Your task to perform on an android device: turn off wifi Image 0: 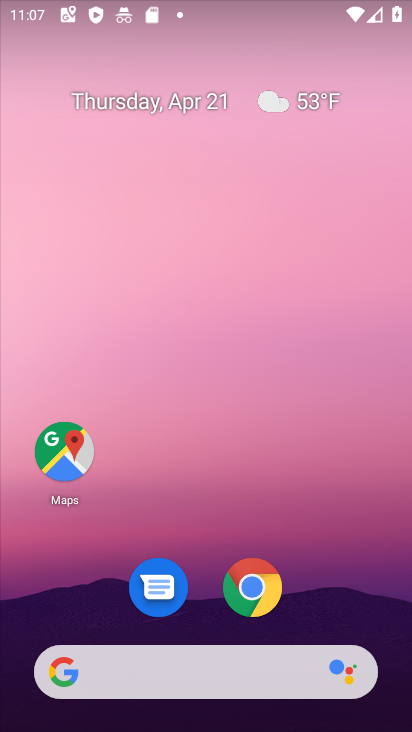
Step 0: drag from (198, 647) to (210, 34)
Your task to perform on an android device: turn off wifi Image 1: 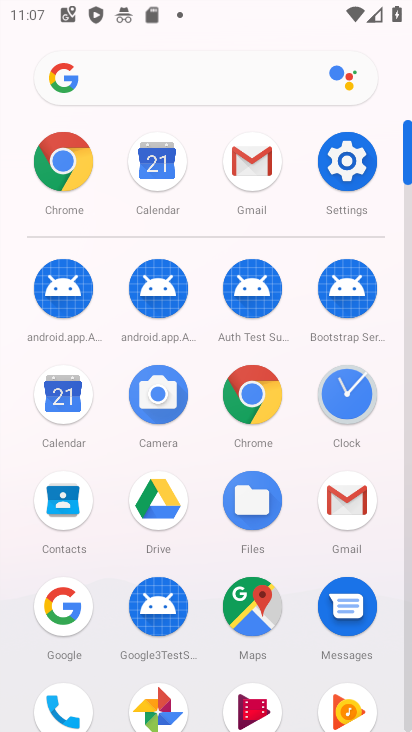
Step 1: click (349, 165)
Your task to perform on an android device: turn off wifi Image 2: 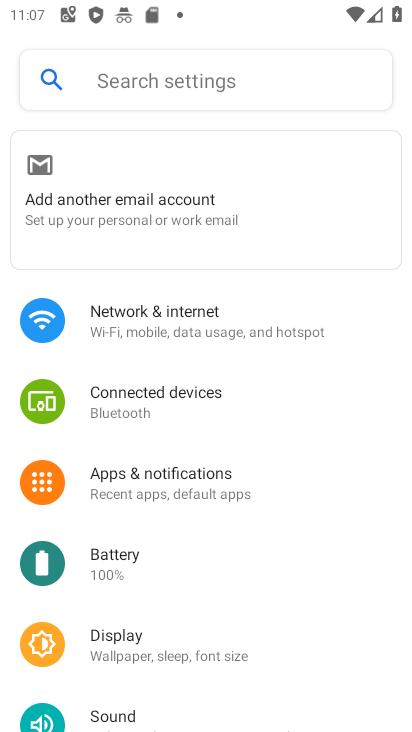
Step 2: click (114, 322)
Your task to perform on an android device: turn off wifi Image 3: 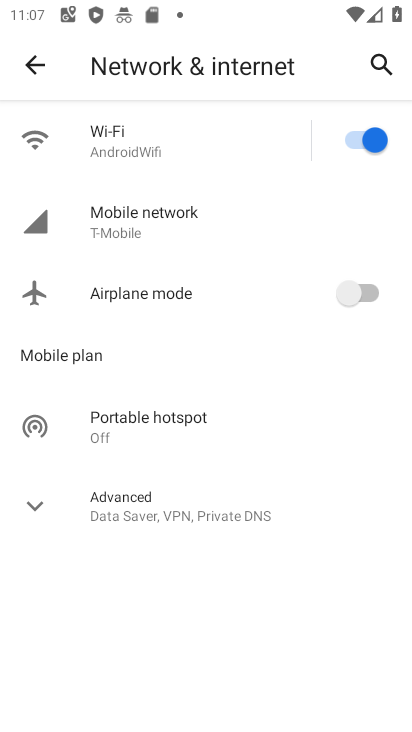
Step 3: click (350, 142)
Your task to perform on an android device: turn off wifi Image 4: 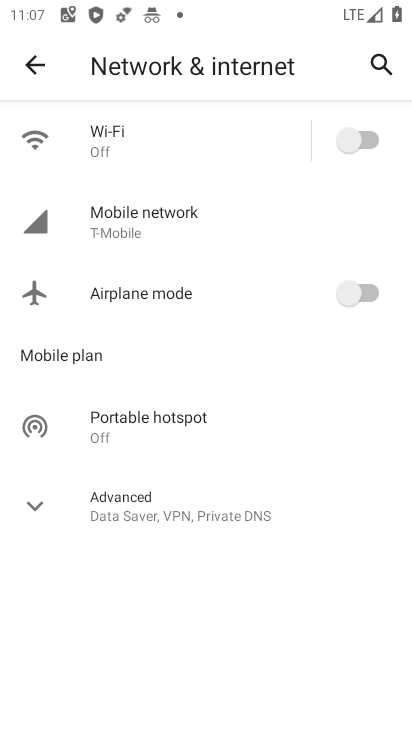
Step 4: task complete